Your task to perform on an android device: install app "DoorDash - Dasher" Image 0: 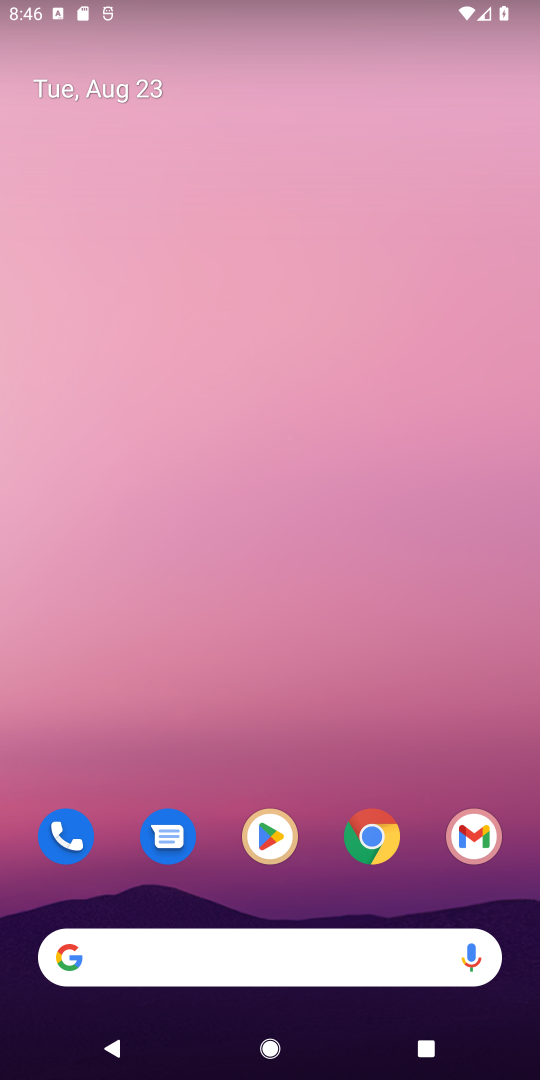
Step 0: click (277, 831)
Your task to perform on an android device: install app "DoorDash - Dasher" Image 1: 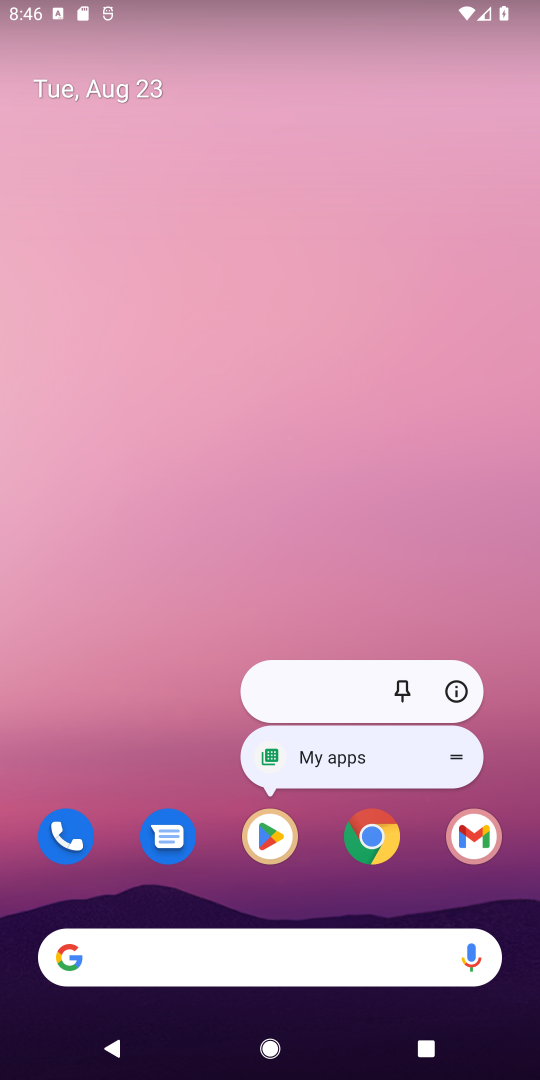
Step 1: click (273, 834)
Your task to perform on an android device: install app "DoorDash - Dasher" Image 2: 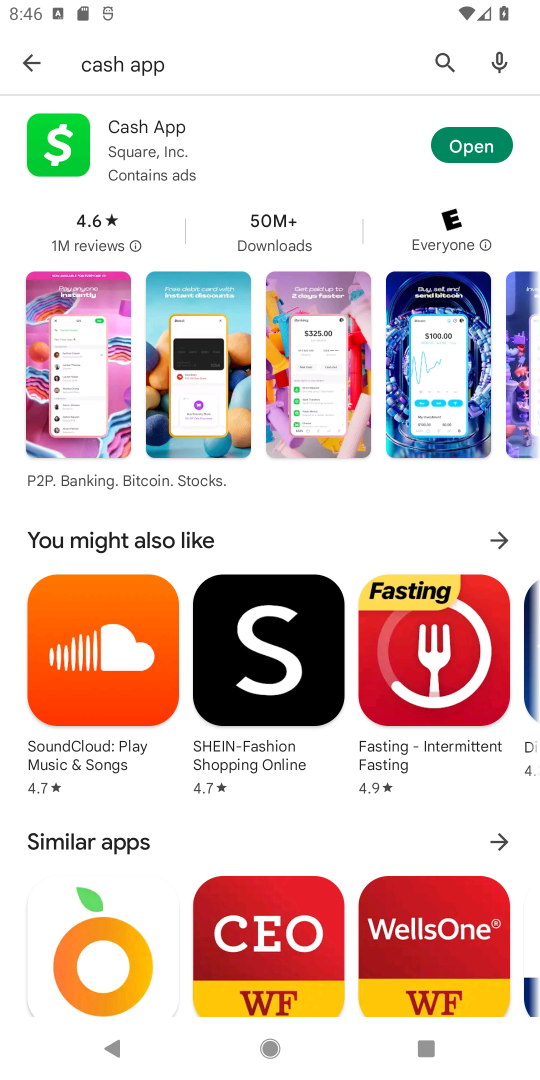
Step 2: click (446, 56)
Your task to perform on an android device: install app "DoorDash - Dasher" Image 3: 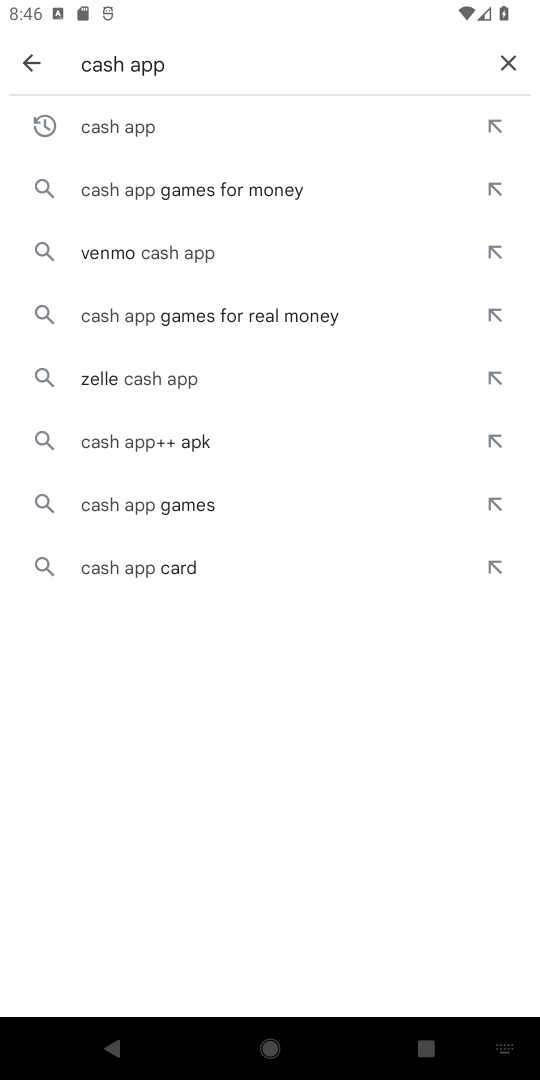
Step 3: click (509, 64)
Your task to perform on an android device: install app "DoorDash - Dasher" Image 4: 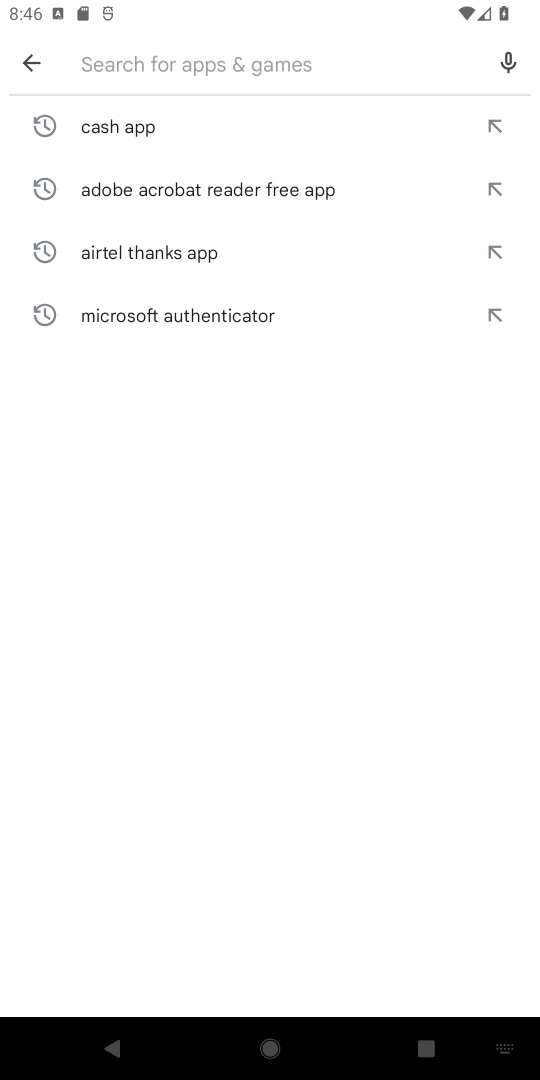
Step 4: type "DoorDash - Dasher"
Your task to perform on an android device: install app "DoorDash - Dasher" Image 5: 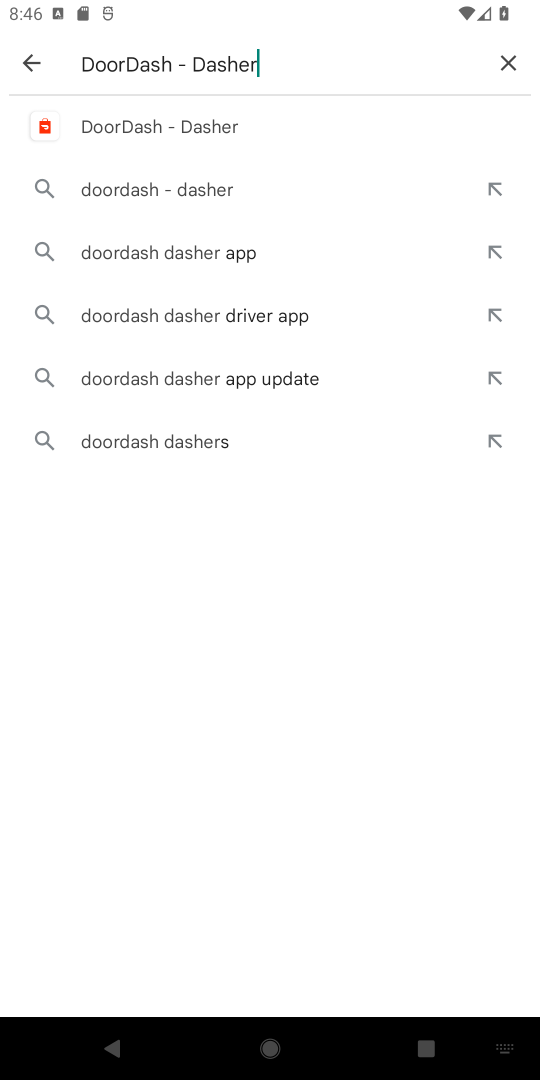
Step 5: click (147, 131)
Your task to perform on an android device: install app "DoorDash - Dasher" Image 6: 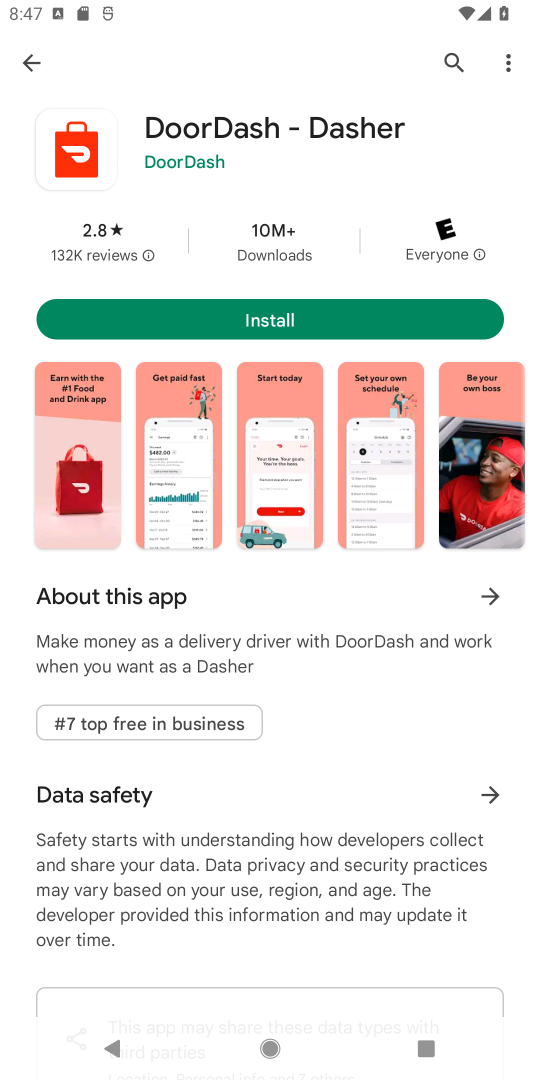
Step 6: click (270, 319)
Your task to perform on an android device: install app "DoorDash - Dasher" Image 7: 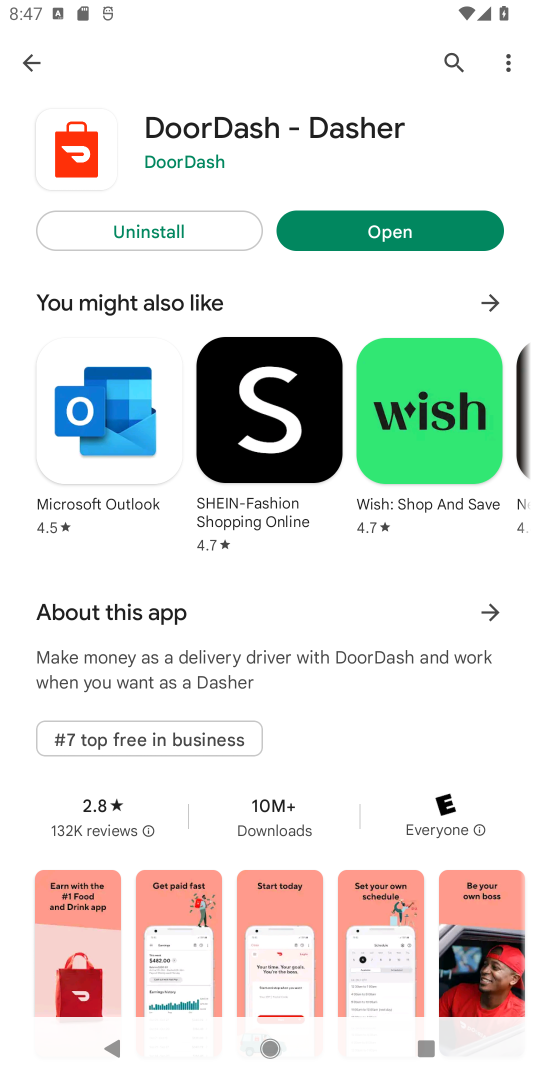
Step 7: task complete